Your task to perform on an android device: toggle notification dots Image 0: 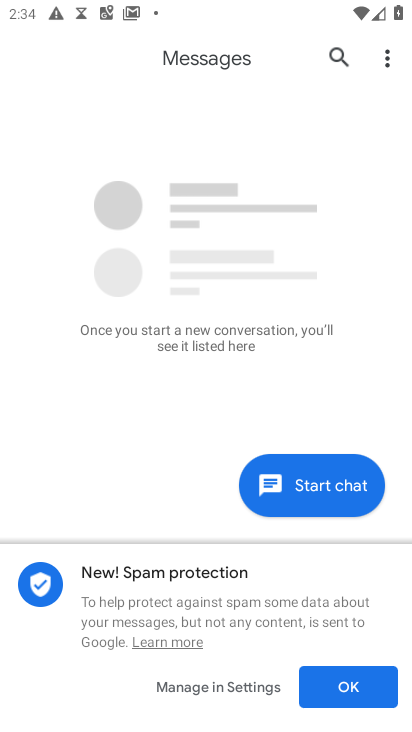
Step 0: press back button
Your task to perform on an android device: toggle notification dots Image 1: 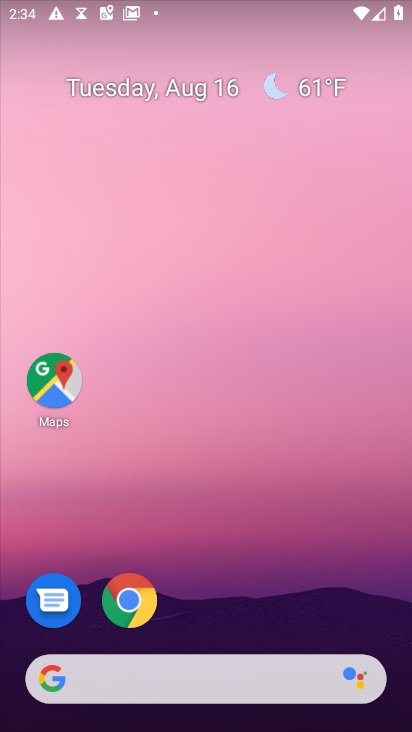
Step 1: drag from (206, 673) to (218, 92)
Your task to perform on an android device: toggle notification dots Image 2: 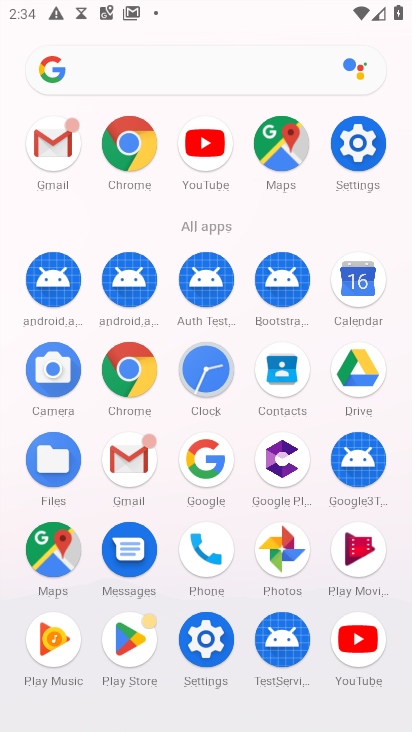
Step 2: click (206, 639)
Your task to perform on an android device: toggle notification dots Image 3: 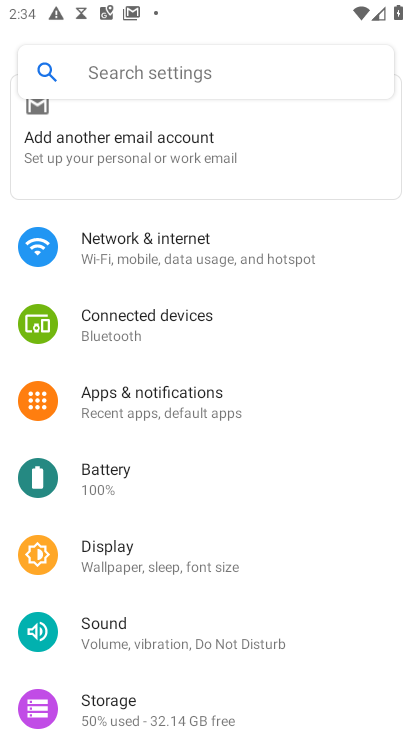
Step 3: click (222, 412)
Your task to perform on an android device: toggle notification dots Image 4: 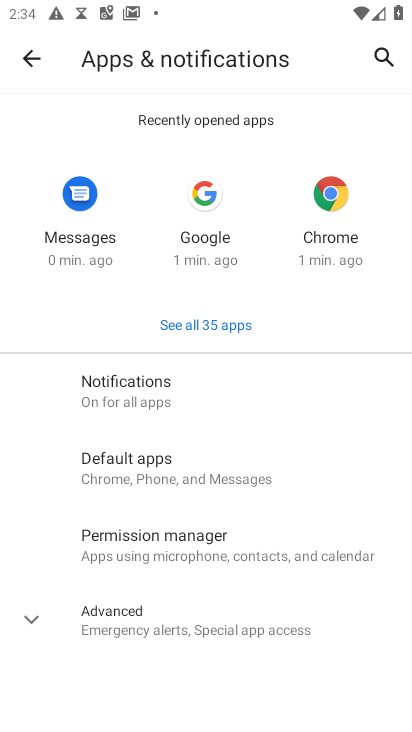
Step 4: click (132, 397)
Your task to perform on an android device: toggle notification dots Image 5: 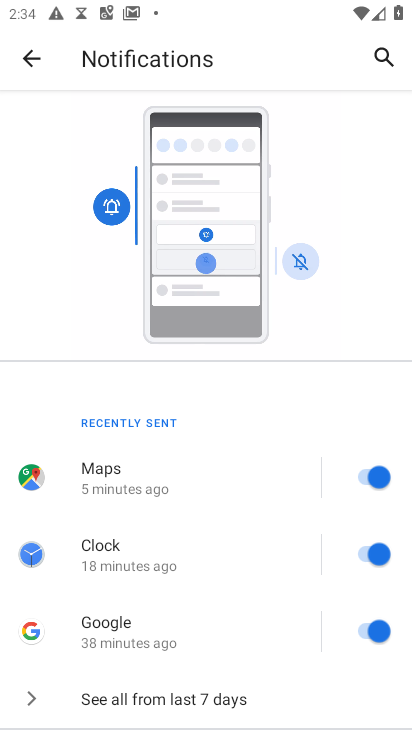
Step 5: drag from (198, 659) to (161, 189)
Your task to perform on an android device: toggle notification dots Image 6: 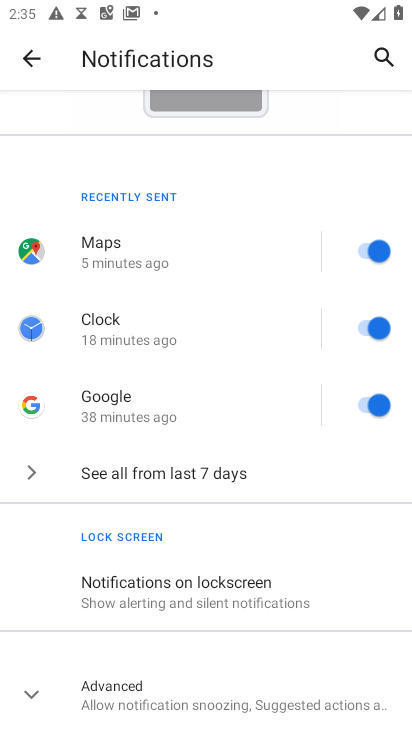
Step 6: click (169, 702)
Your task to perform on an android device: toggle notification dots Image 7: 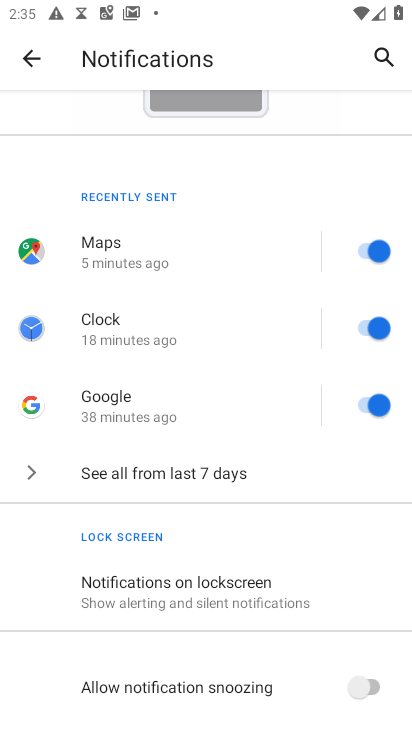
Step 7: drag from (211, 660) to (279, 62)
Your task to perform on an android device: toggle notification dots Image 8: 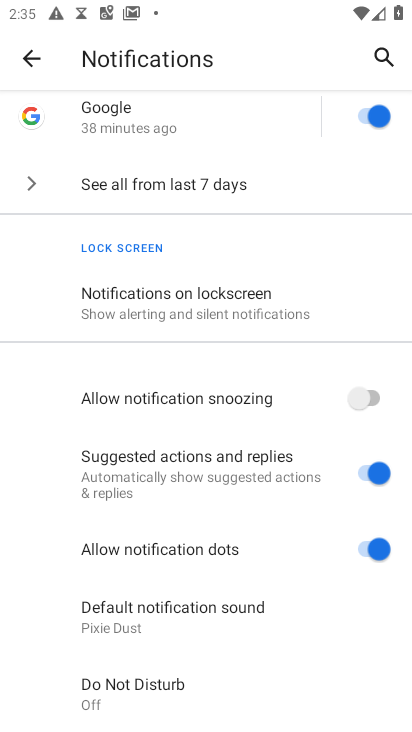
Step 8: click (381, 545)
Your task to perform on an android device: toggle notification dots Image 9: 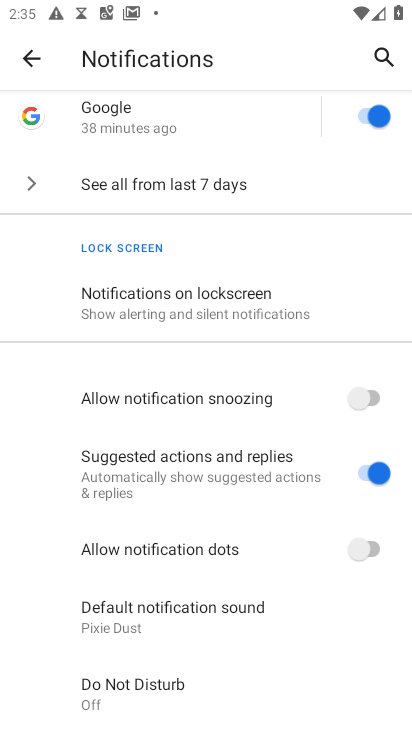
Step 9: task complete